Your task to perform on an android device: Open calendar and show me the second week of next month Image 0: 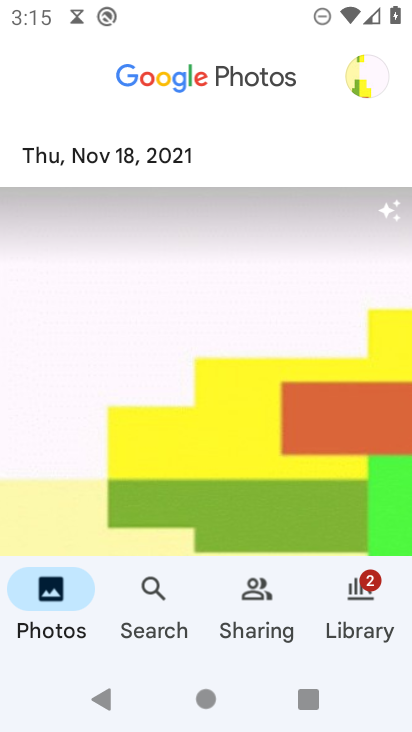
Step 0: press home button
Your task to perform on an android device: Open calendar and show me the second week of next month Image 1: 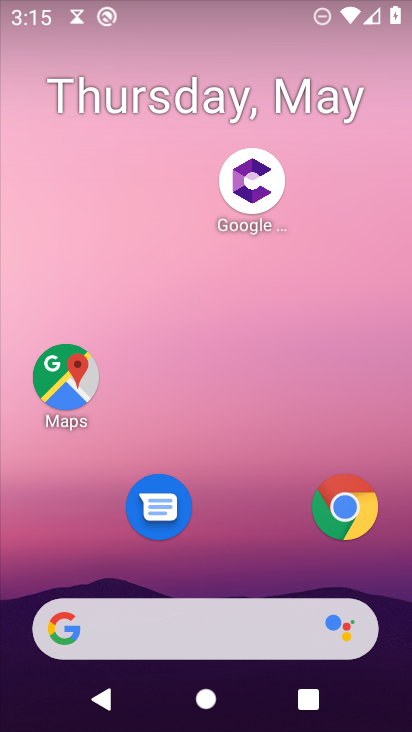
Step 1: drag from (243, 512) to (148, 103)
Your task to perform on an android device: Open calendar and show me the second week of next month Image 2: 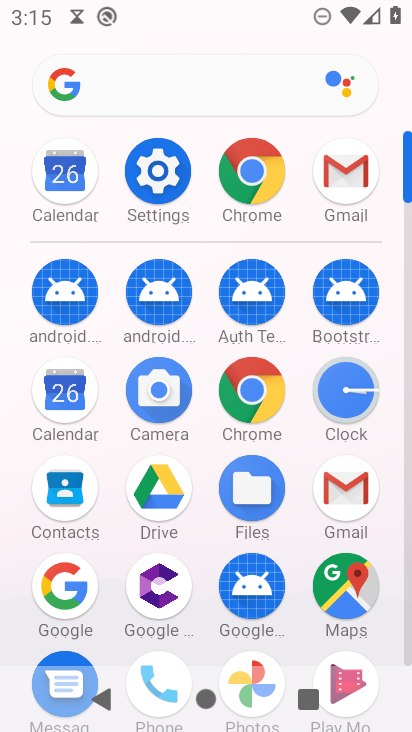
Step 2: click (55, 183)
Your task to perform on an android device: Open calendar and show me the second week of next month Image 3: 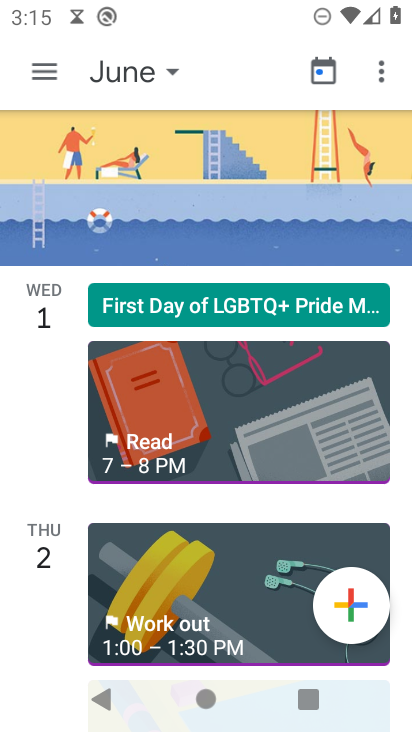
Step 3: task complete